Your task to perform on an android device: Open network settings Image 0: 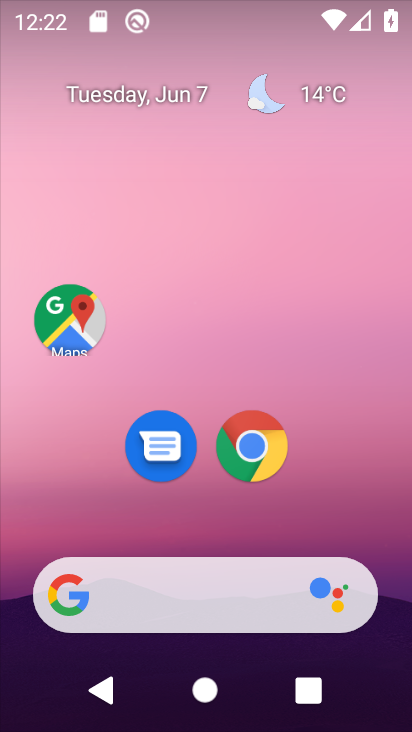
Step 0: drag from (209, 433) to (236, 6)
Your task to perform on an android device: Open network settings Image 1: 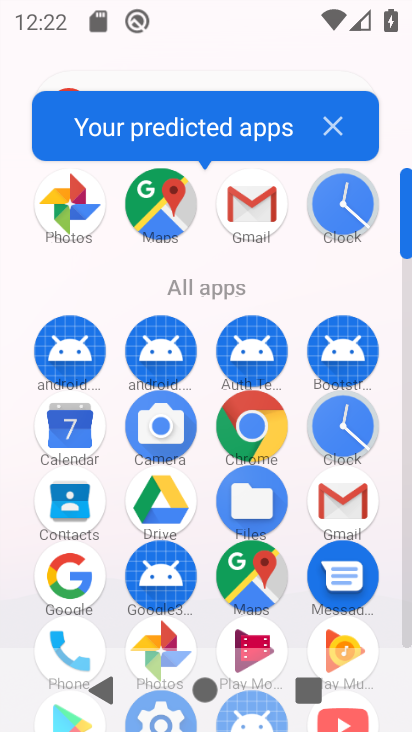
Step 1: drag from (218, 530) to (292, 58)
Your task to perform on an android device: Open network settings Image 2: 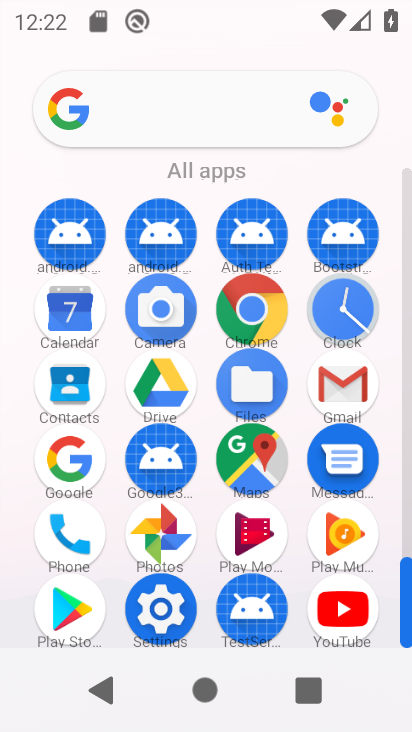
Step 2: click (155, 614)
Your task to perform on an android device: Open network settings Image 3: 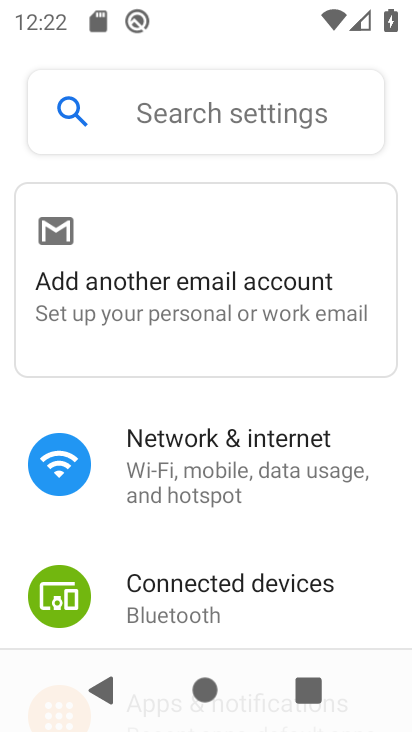
Step 3: click (229, 458)
Your task to perform on an android device: Open network settings Image 4: 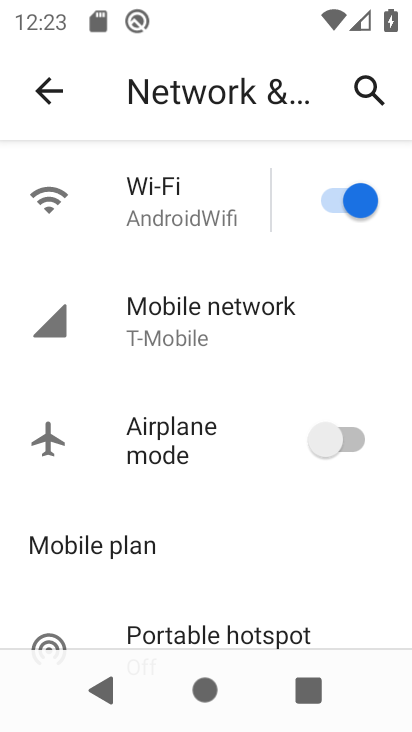
Step 4: task complete